Your task to perform on an android device: turn off wifi Image 0: 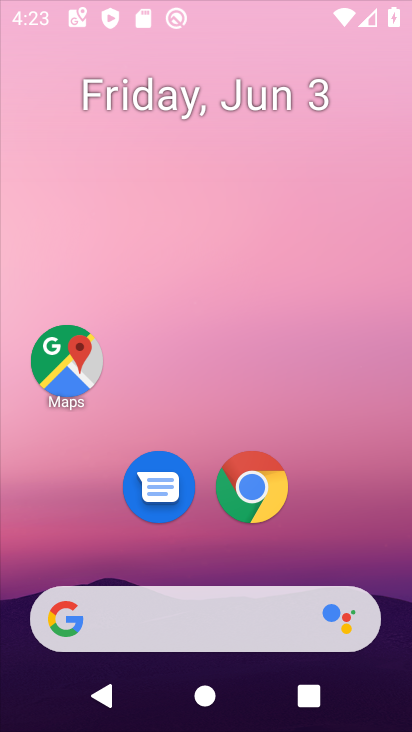
Step 0: click (279, 121)
Your task to perform on an android device: turn off wifi Image 1: 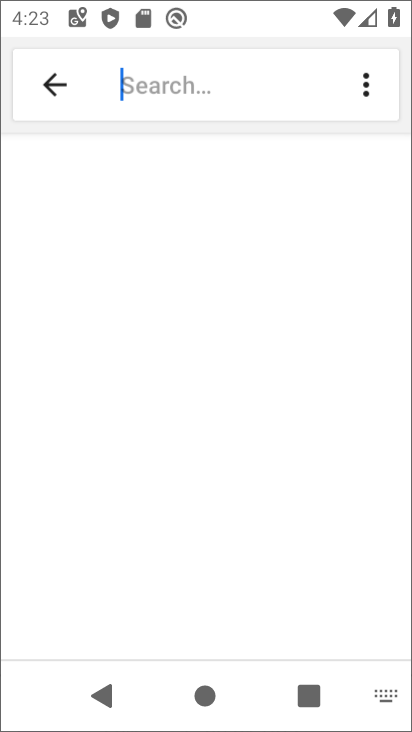
Step 1: drag from (206, 590) to (255, 547)
Your task to perform on an android device: turn off wifi Image 2: 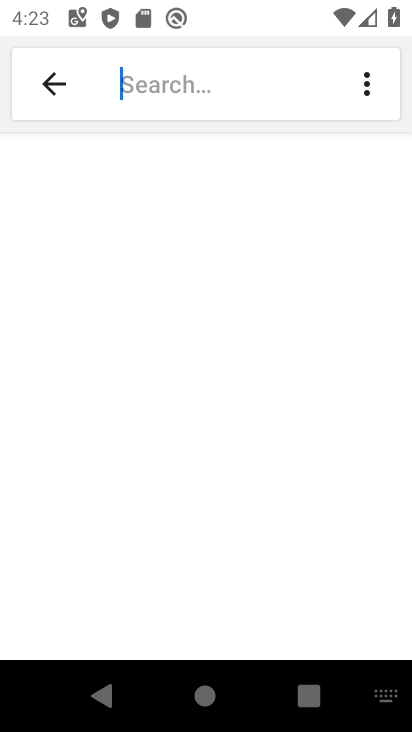
Step 2: click (50, 82)
Your task to perform on an android device: turn off wifi Image 3: 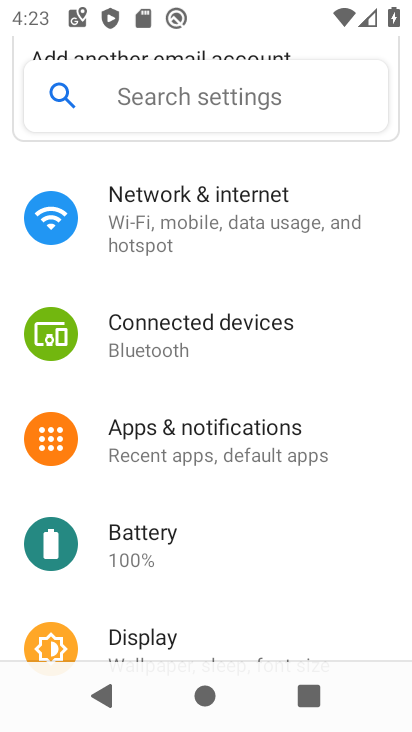
Step 3: drag from (200, 195) to (298, 721)
Your task to perform on an android device: turn off wifi Image 4: 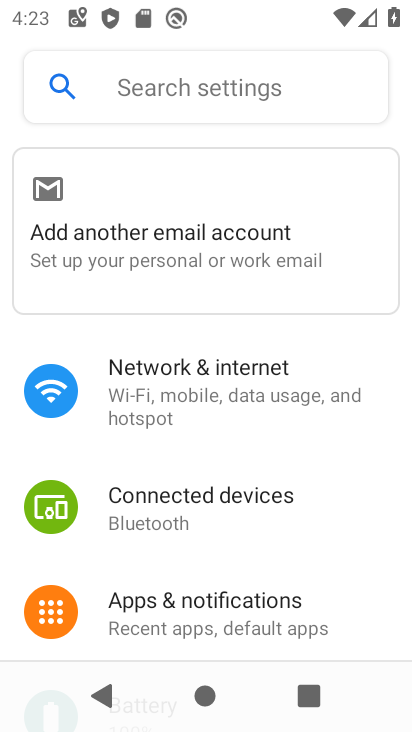
Step 4: click (134, 369)
Your task to perform on an android device: turn off wifi Image 5: 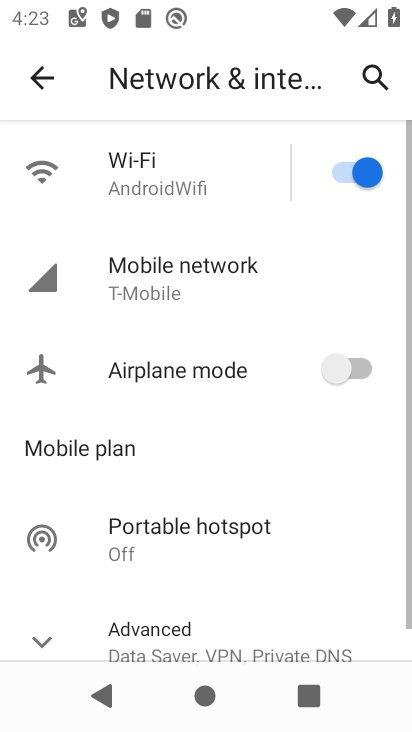
Step 5: drag from (248, 600) to (259, 688)
Your task to perform on an android device: turn off wifi Image 6: 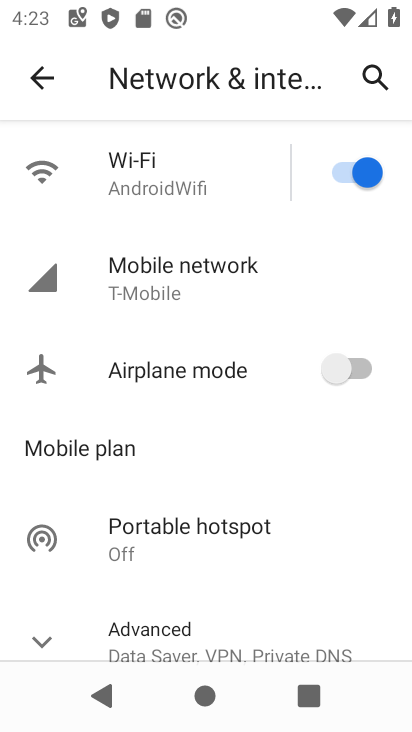
Step 6: click (364, 177)
Your task to perform on an android device: turn off wifi Image 7: 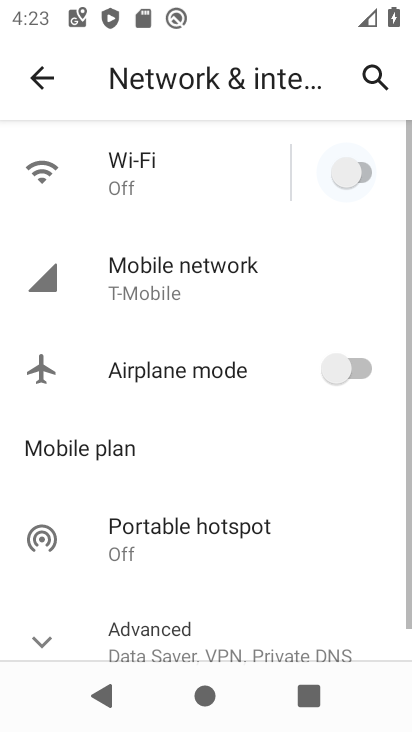
Step 7: task complete